Your task to perform on an android device: Go to sound settings Image 0: 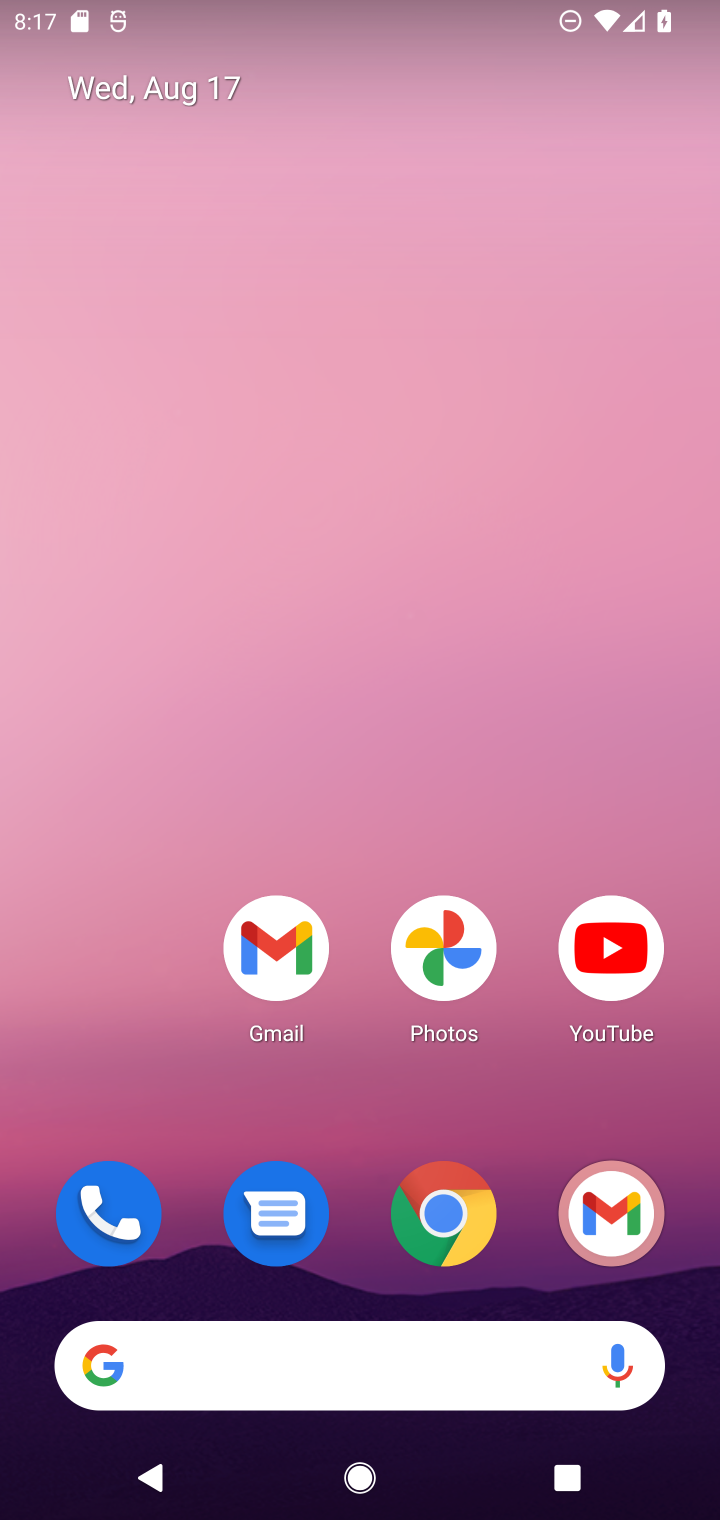
Step 0: drag from (348, 1290) to (399, 356)
Your task to perform on an android device: Go to sound settings Image 1: 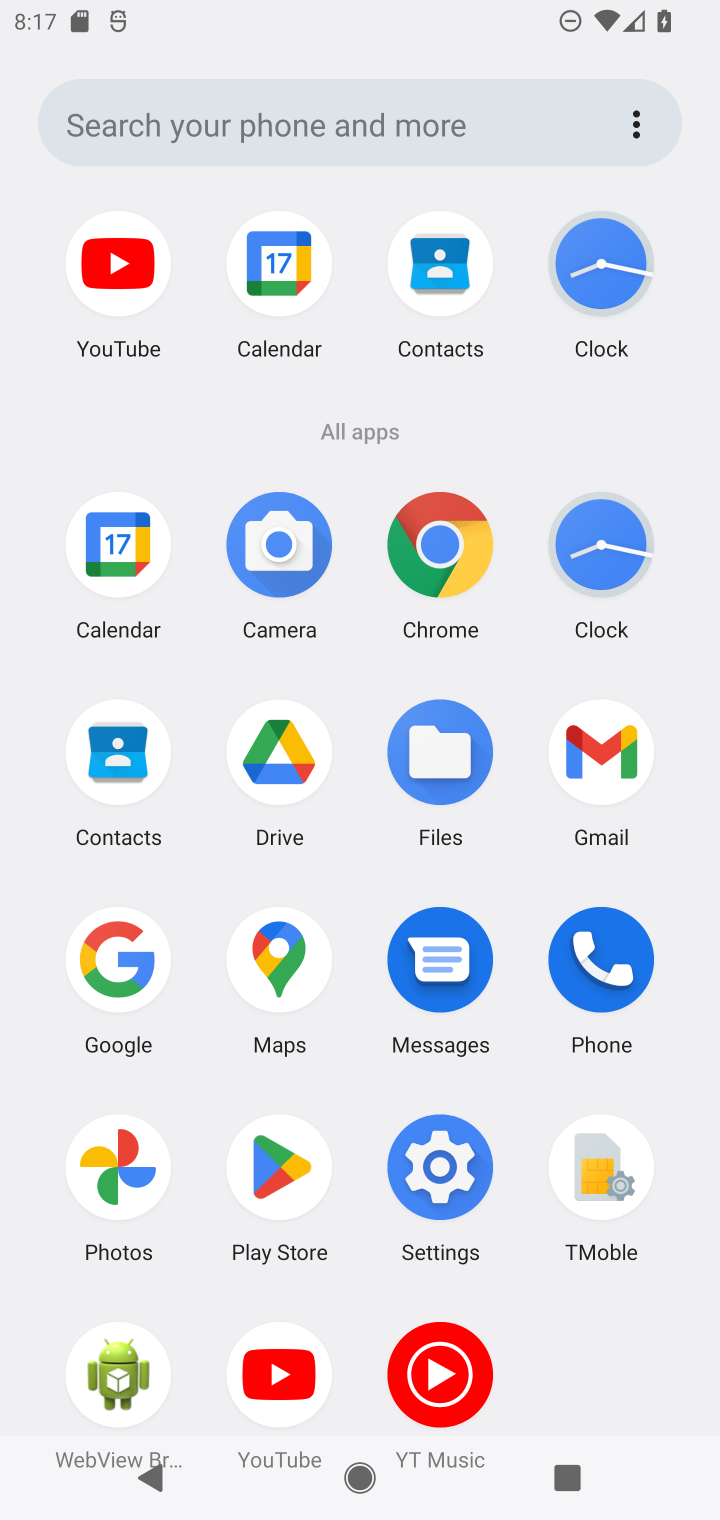
Step 1: click (447, 1193)
Your task to perform on an android device: Go to sound settings Image 2: 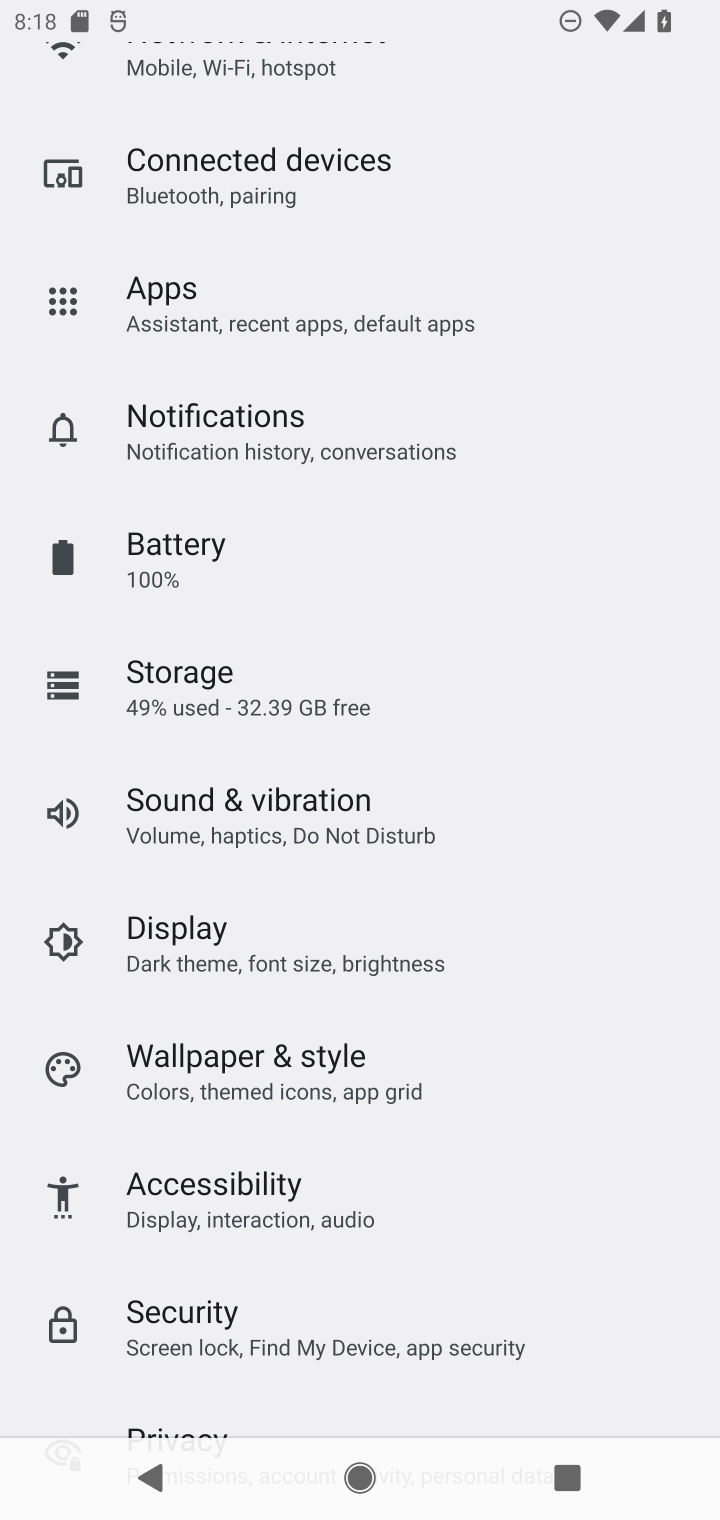
Step 2: click (265, 798)
Your task to perform on an android device: Go to sound settings Image 3: 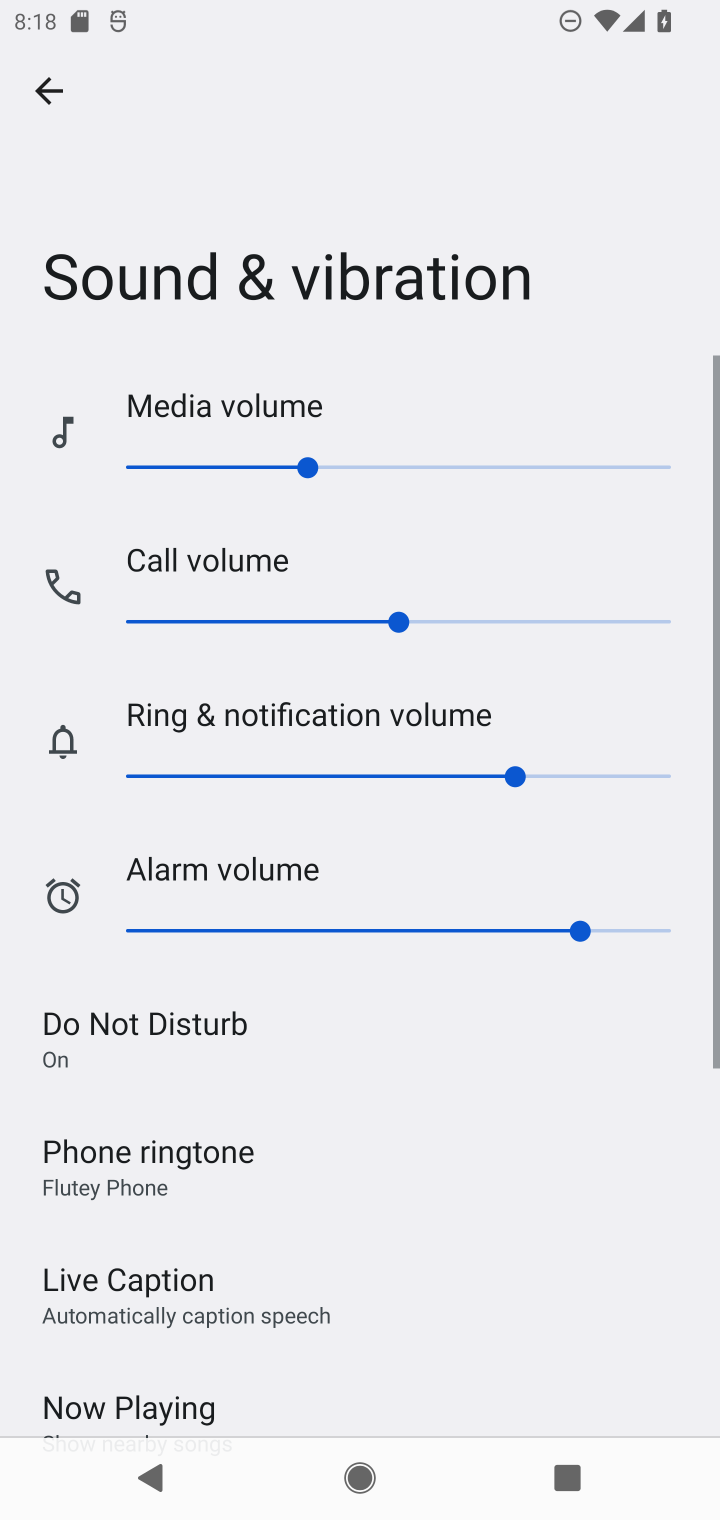
Step 3: task complete